Your task to perform on an android device: Open accessibility settings Image 0: 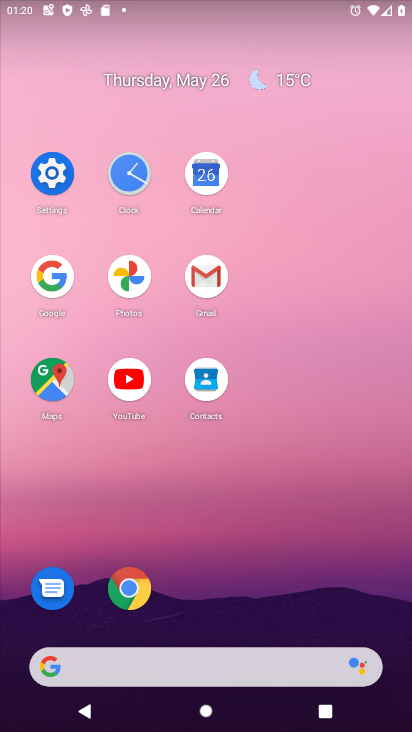
Step 0: click (57, 169)
Your task to perform on an android device: Open accessibility settings Image 1: 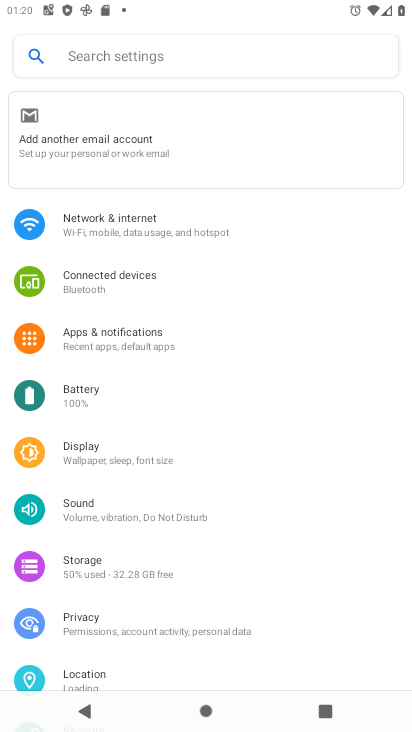
Step 1: drag from (242, 594) to (203, 256)
Your task to perform on an android device: Open accessibility settings Image 2: 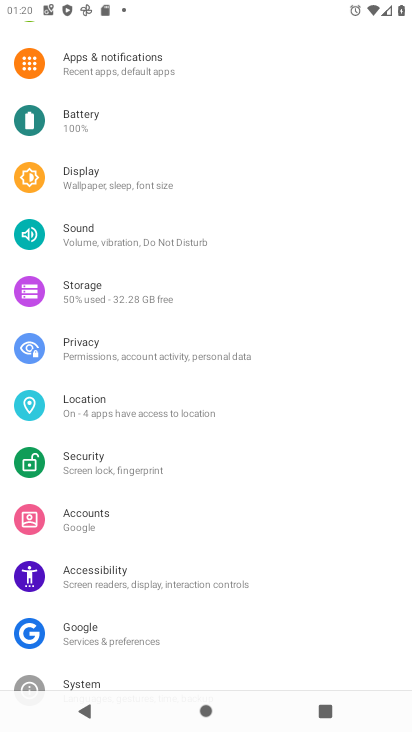
Step 2: click (174, 575)
Your task to perform on an android device: Open accessibility settings Image 3: 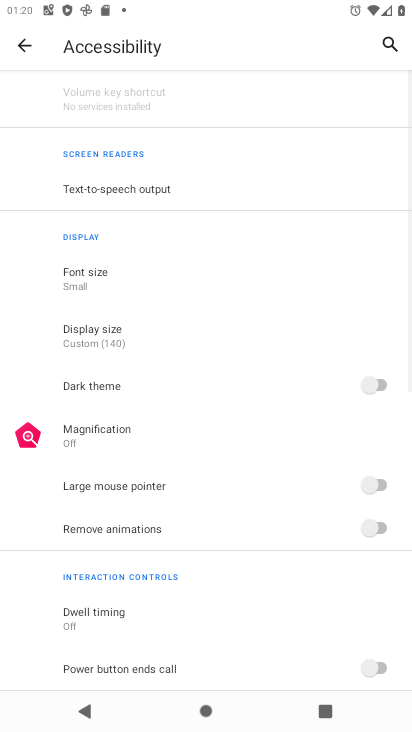
Step 3: task complete